Your task to perform on an android device: Add "logitech g502" to the cart on newegg, then select checkout. Image 0: 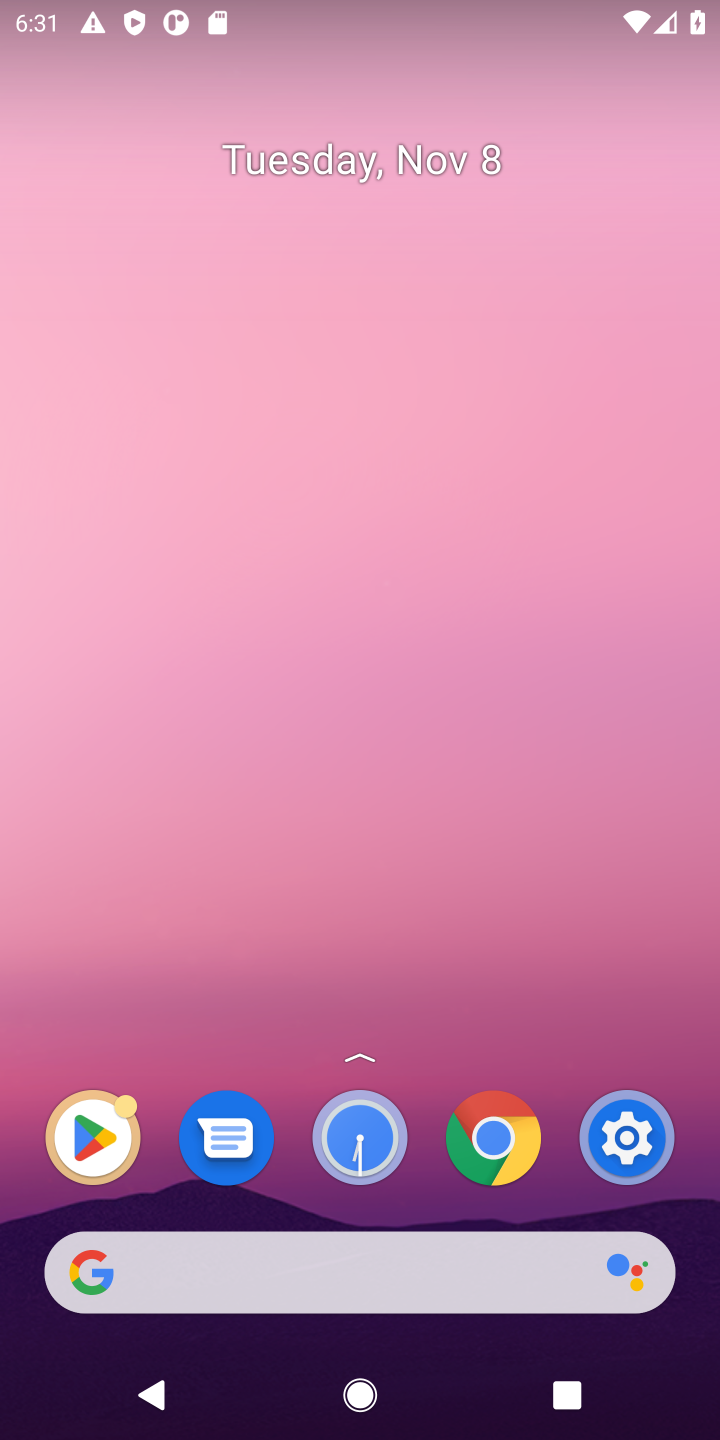
Step 0: click (259, 1272)
Your task to perform on an android device: Add "logitech g502" to the cart on newegg, then select checkout. Image 1: 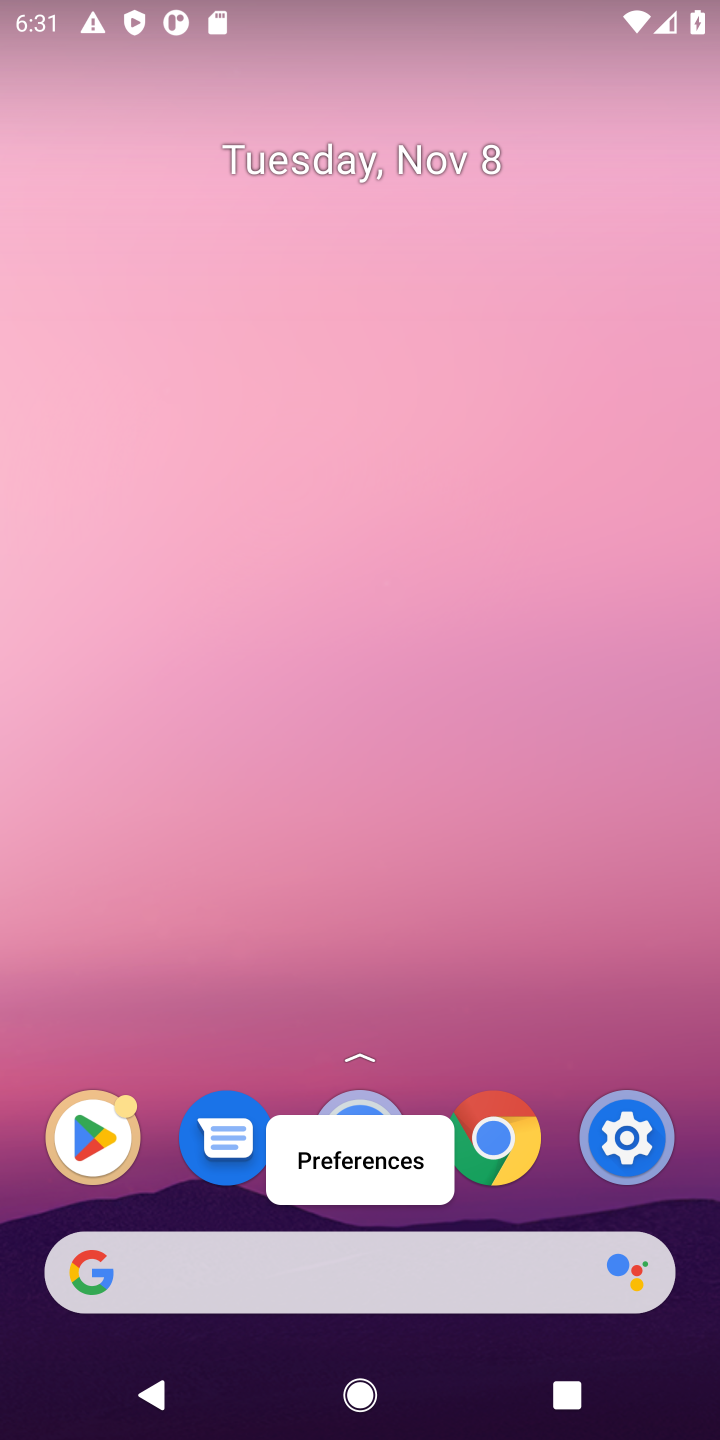
Step 1: click (235, 1283)
Your task to perform on an android device: Add "logitech g502" to the cart on newegg, then select checkout. Image 2: 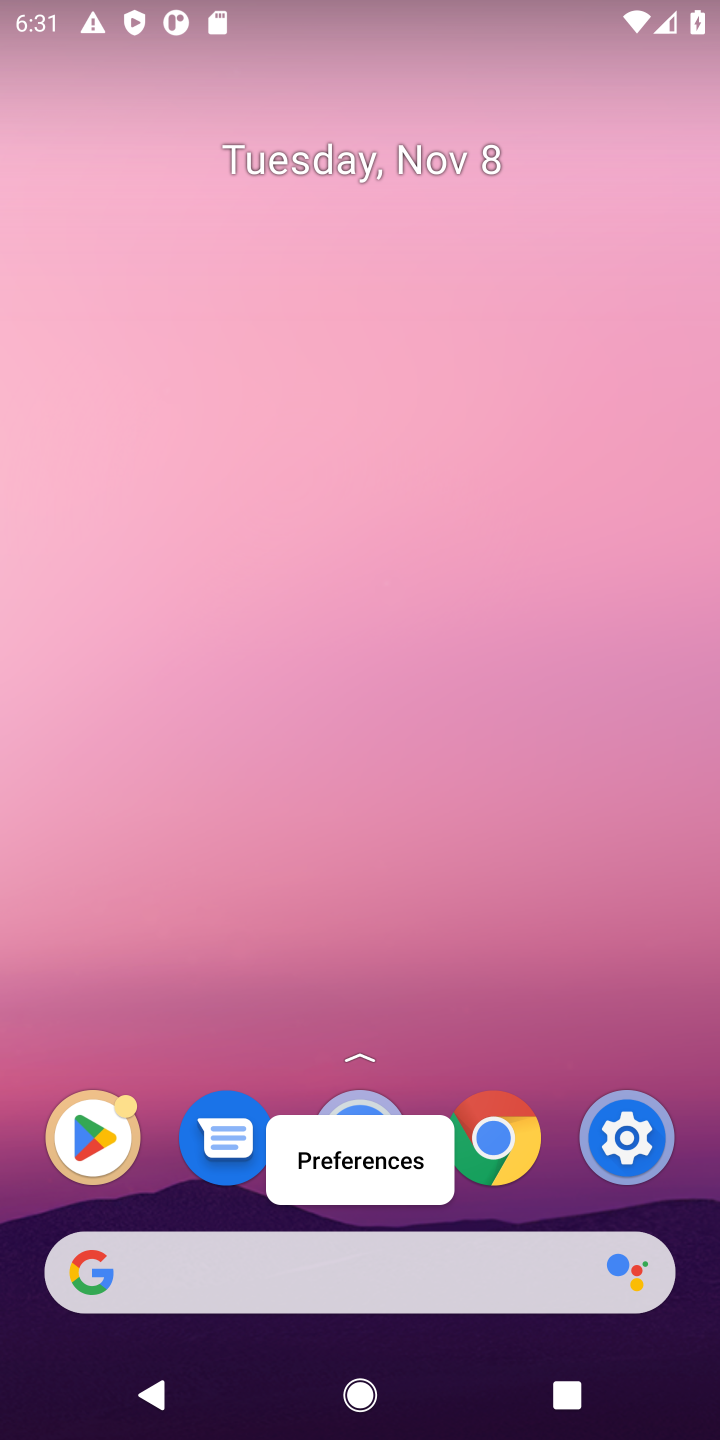
Step 2: click (235, 1281)
Your task to perform on an android device: Add "logitech g502" to the cart on newegg, then select checkout. Image 3: 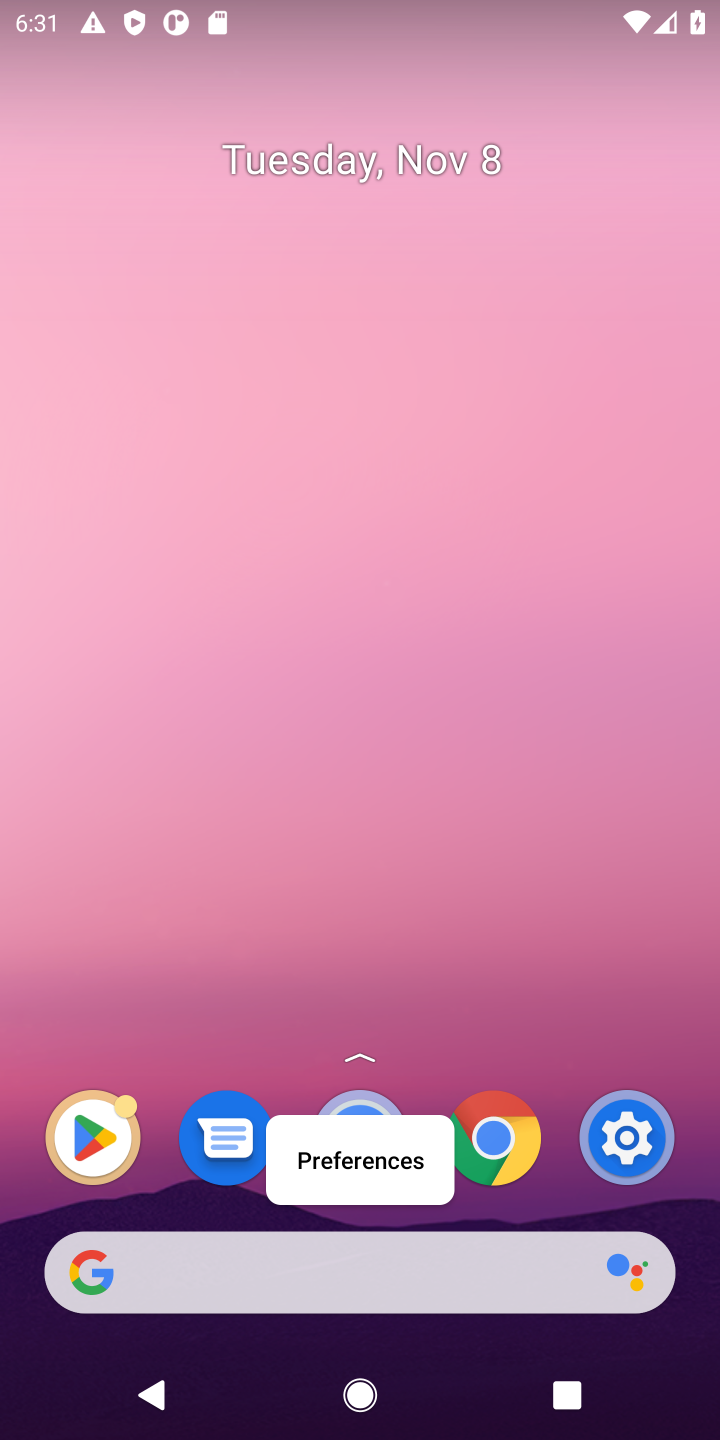
Step 3: click (235, 1281)
Your task to perform on an android device: Add "logitech g502" to the cart on newegg, then select checkout. Image 4: 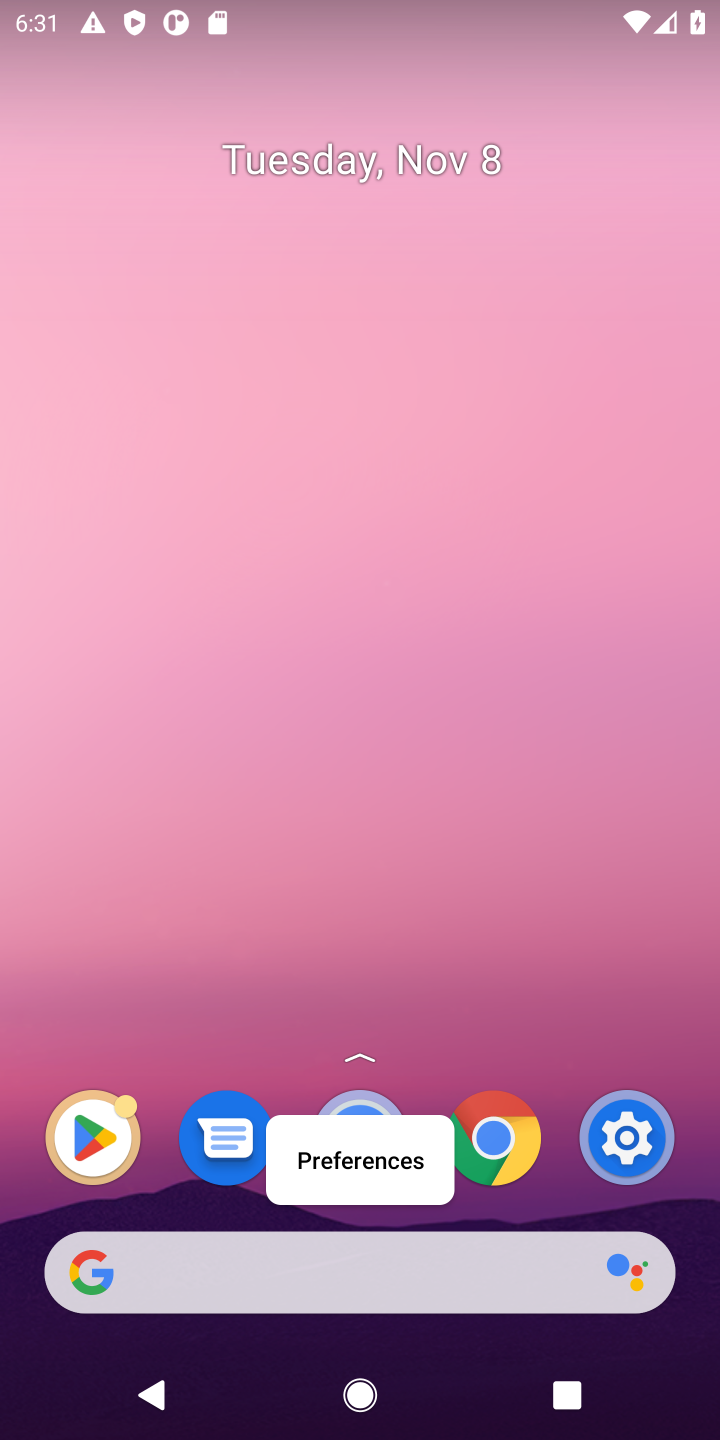
Step 4: click (235, 1281)
Your task to perform on an android device: Add "logitech g502" to the cart on newegg, then select checkout. Image 5: 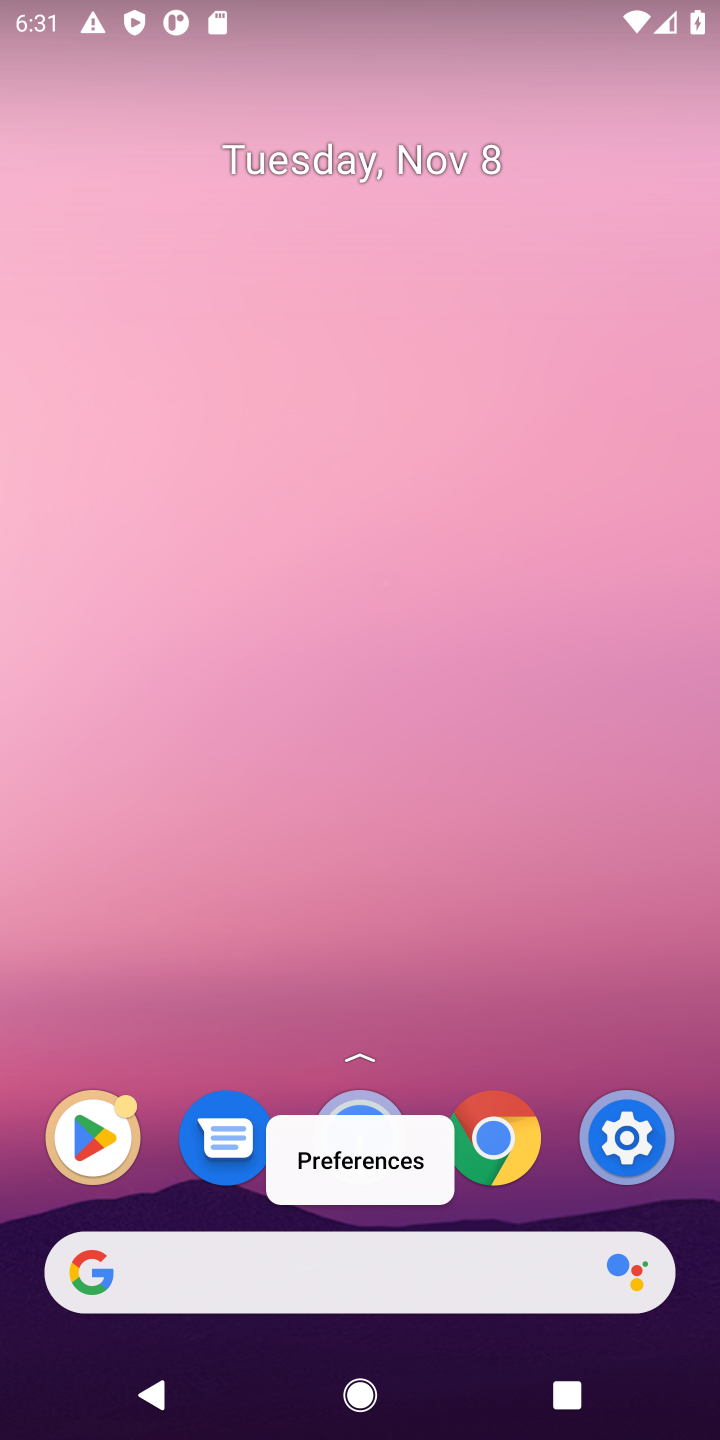
Step 5: click (235, 1281)
Your task to perform on an android device: Add "logitech g502" to the cart on newegg, then select checkout. Image 6: 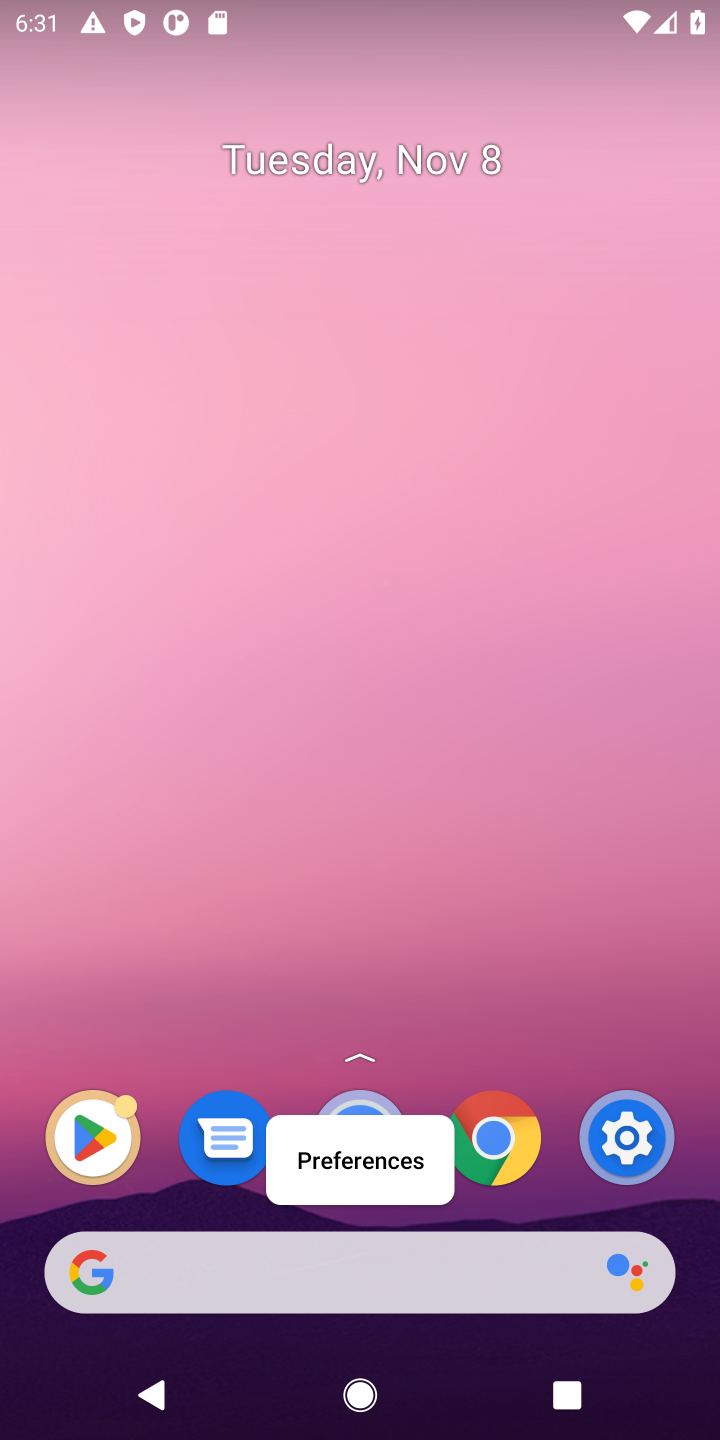
Step 6: click (418, 1259)
Your task to perform on an android device: Add "logitech g502" to the cart on newegg, then select checkout. Image 7: 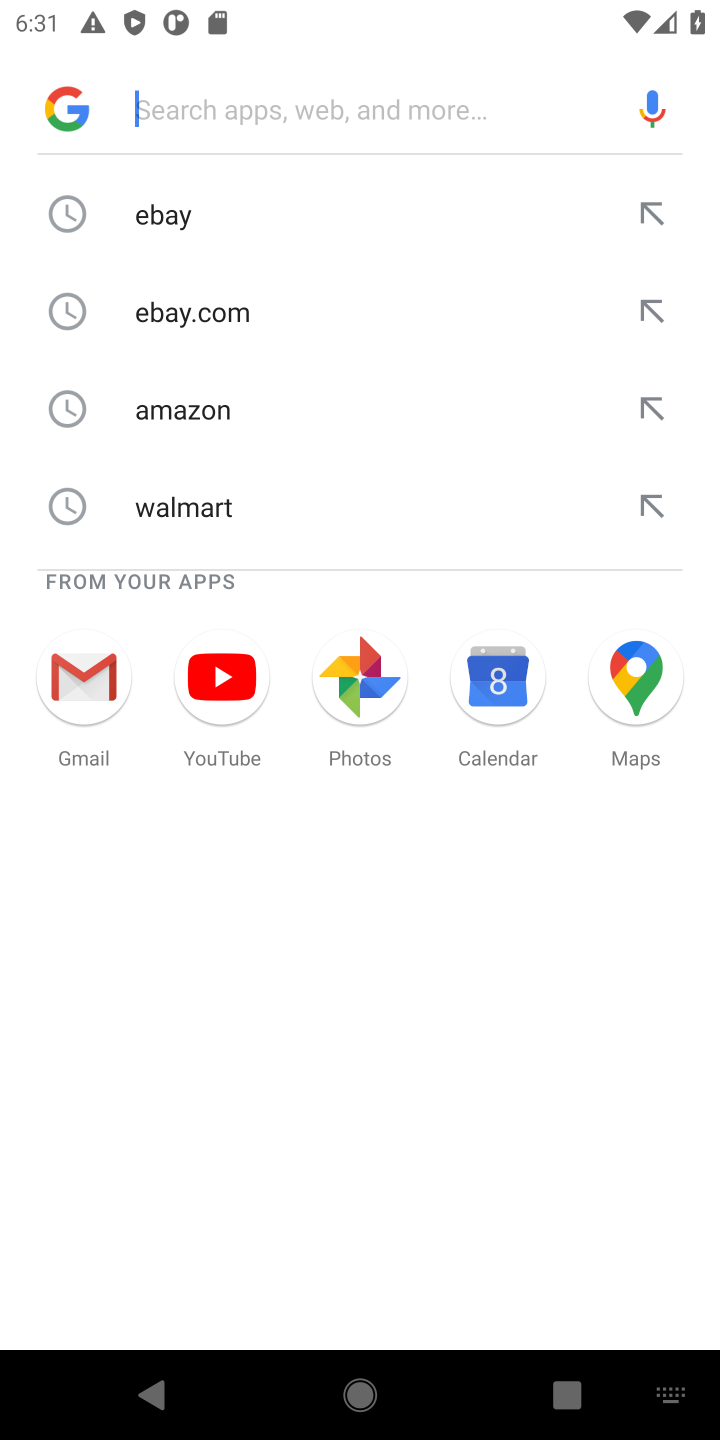
Step 7: type "newegg"
Your task to perform on an android device: Add "logitech g502" to the cart on newegg, then select checkout. Image 8: 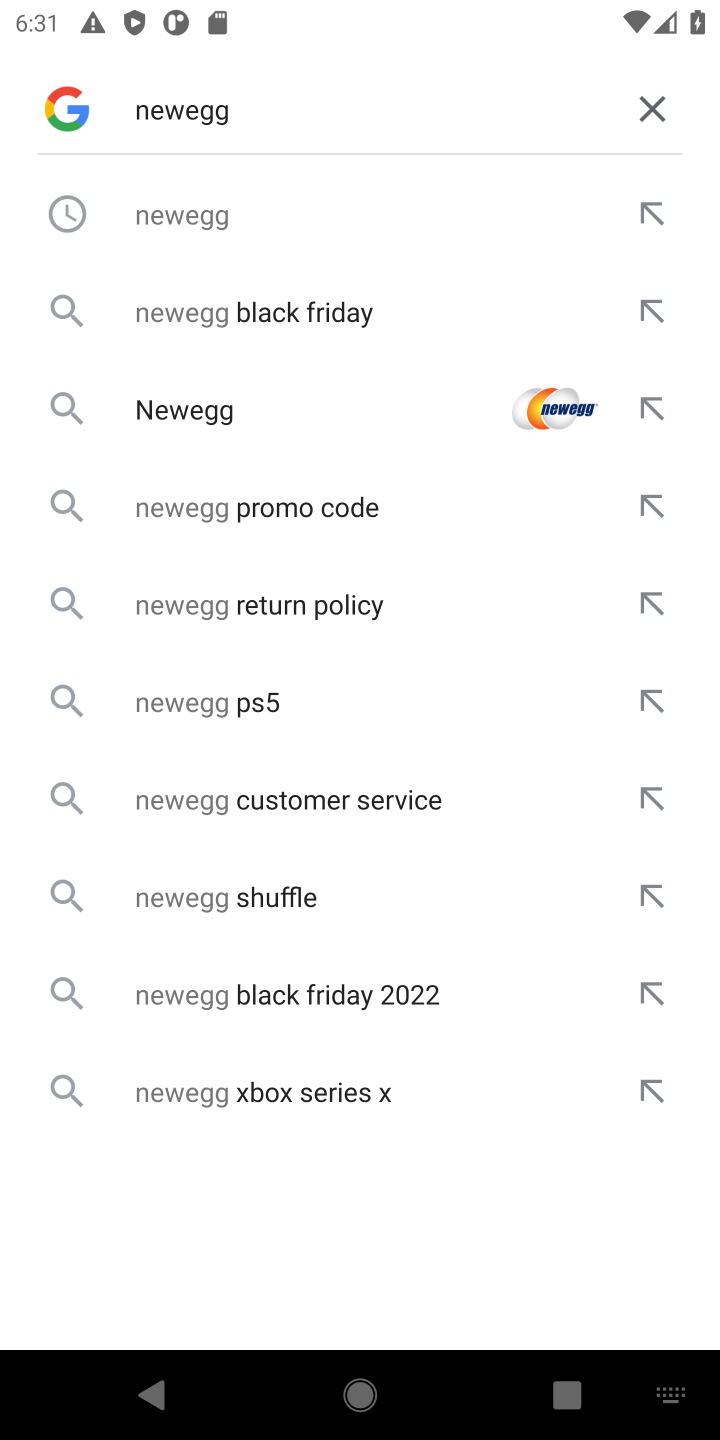
Step 8: type ""
Your task to perform on an android device: Add "logitech g502" to the cart on newegg, then select checkout. Image 9: 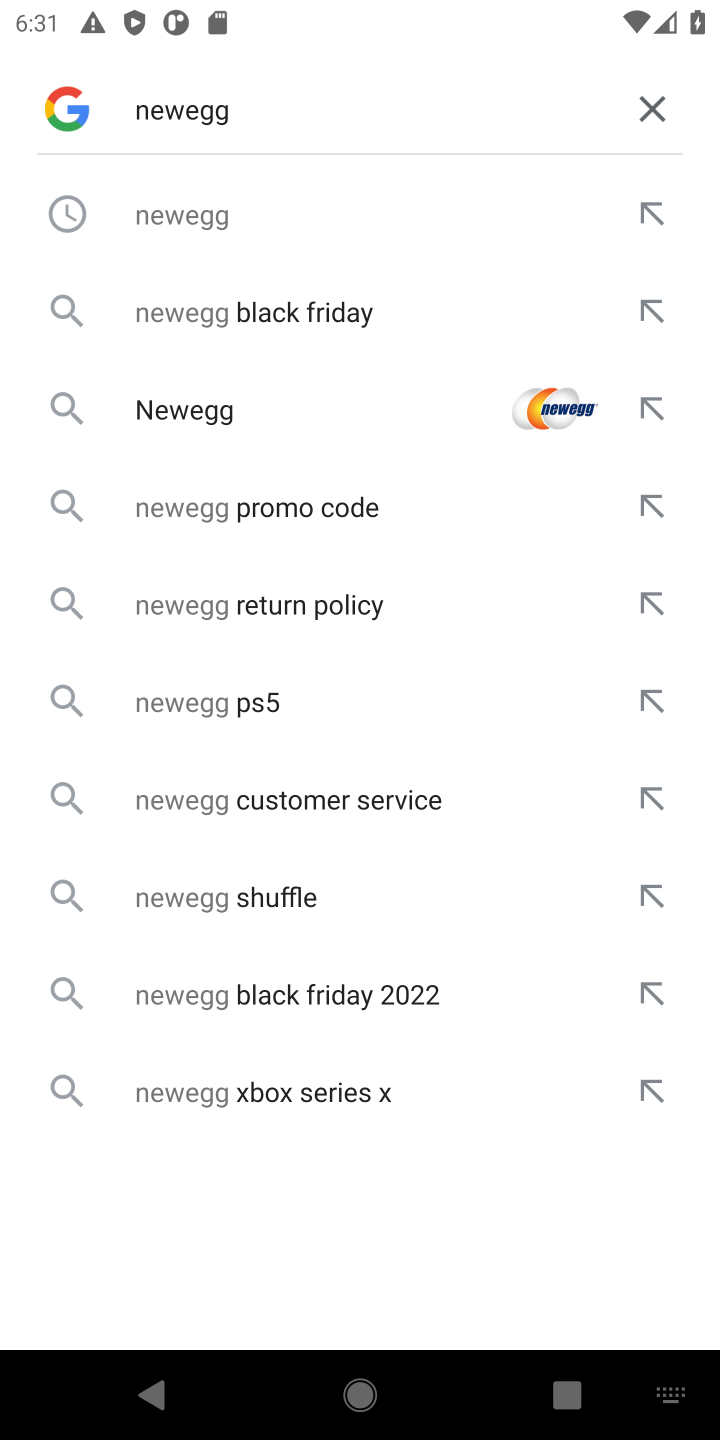
Step 9: press enter
Your task to perform on an android device: Add "logitech g502" to the cart on newegg, then select checkout. Image 10: 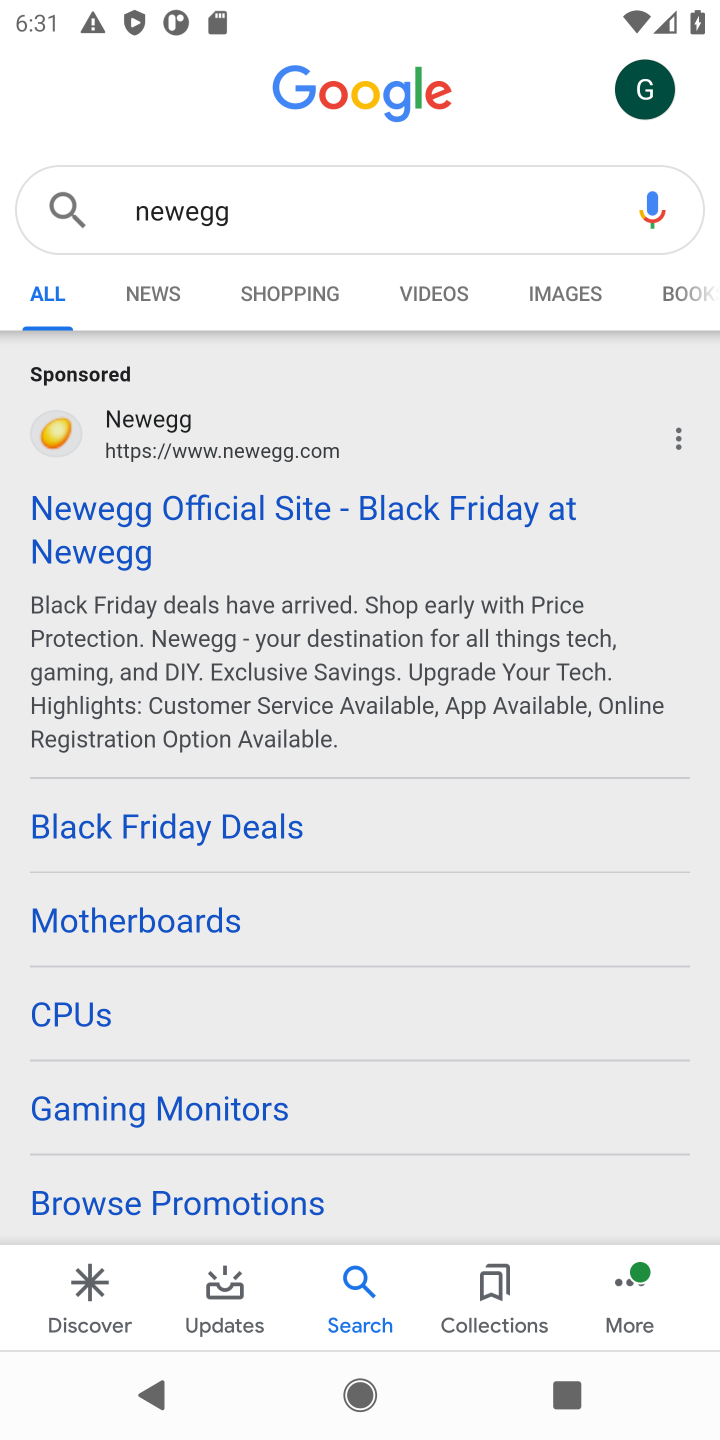
Step 10: click (226, 473)
Your task to perform on an android device: Add "logitech g502" to the cart on newegg, then select checkout. Image 11: 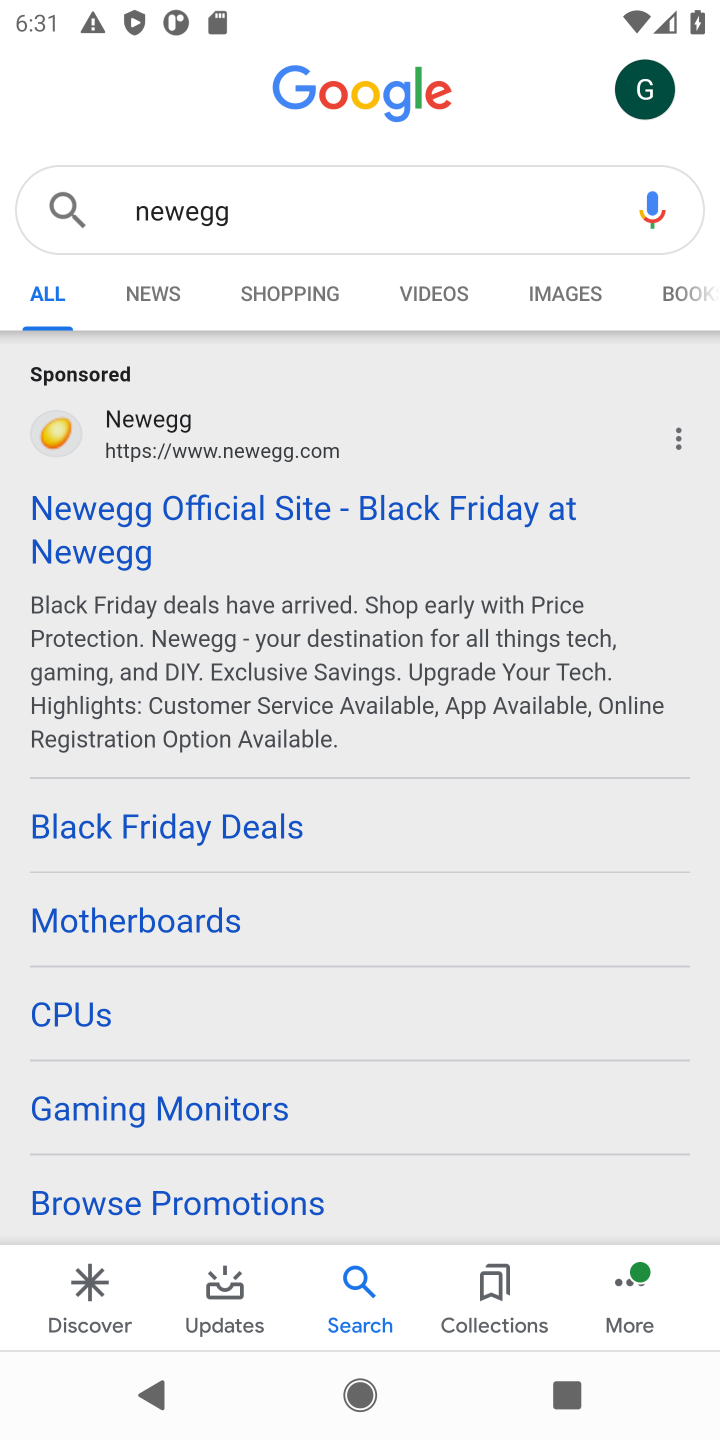
Step 11: click (204, 500)
Your task to perform on an android device: Add "logitech g502" to the cart on newegg, then select checkout. Image 12: 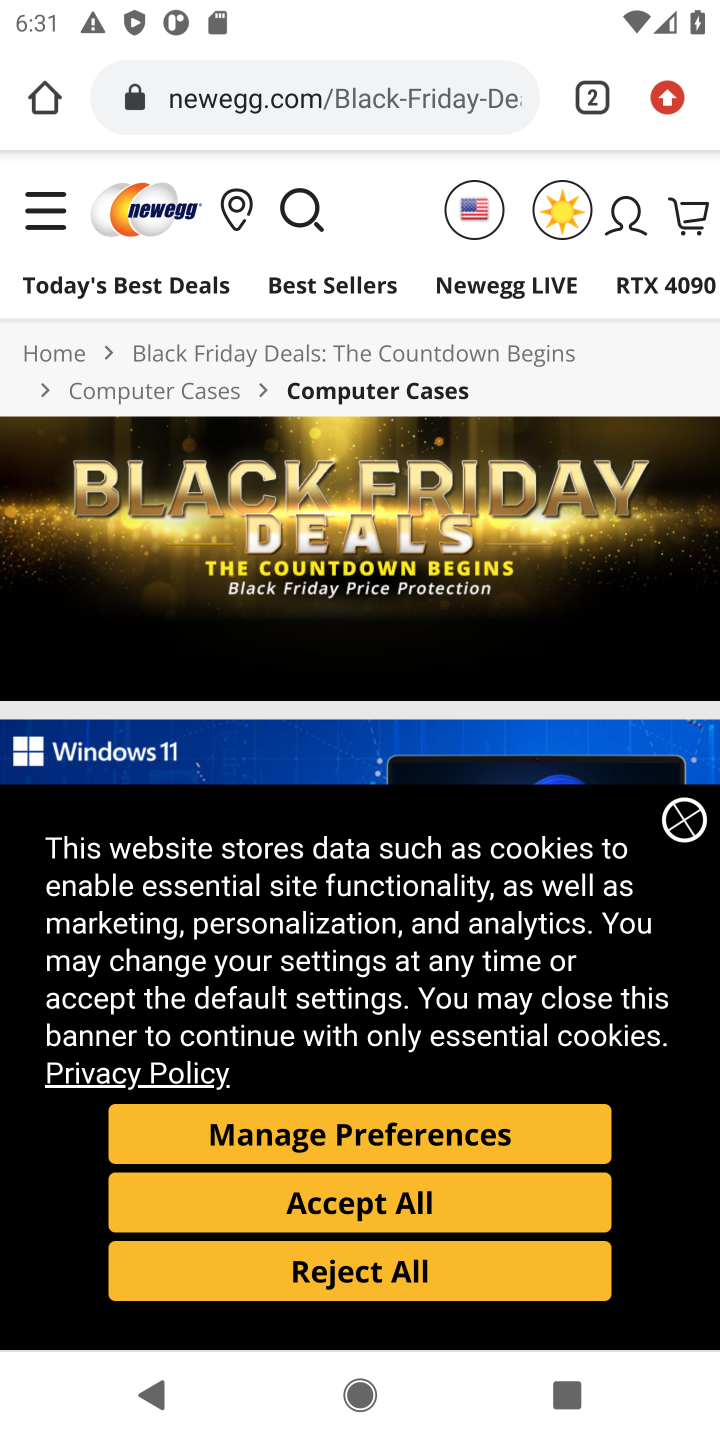
Step 12: drag from (503, 1192) to (406, 1222)
Your task to perform on an android device: Add "logitech g502" to the cart on newegg, then select checkout. Image 13: 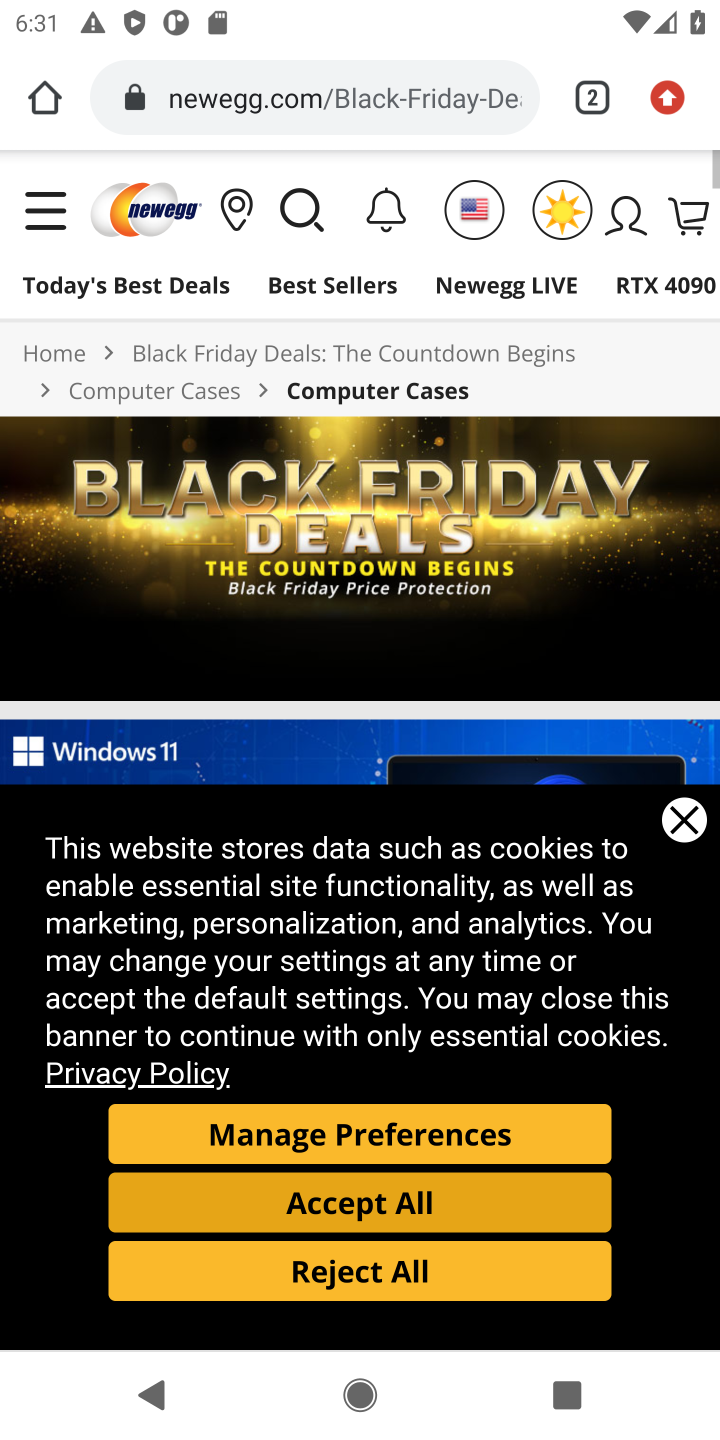
Step 13: click (369, 1215)
Your task to perform on an android device: Add "logitech g502" to the cart on newegg, then select checkout. Image 14: 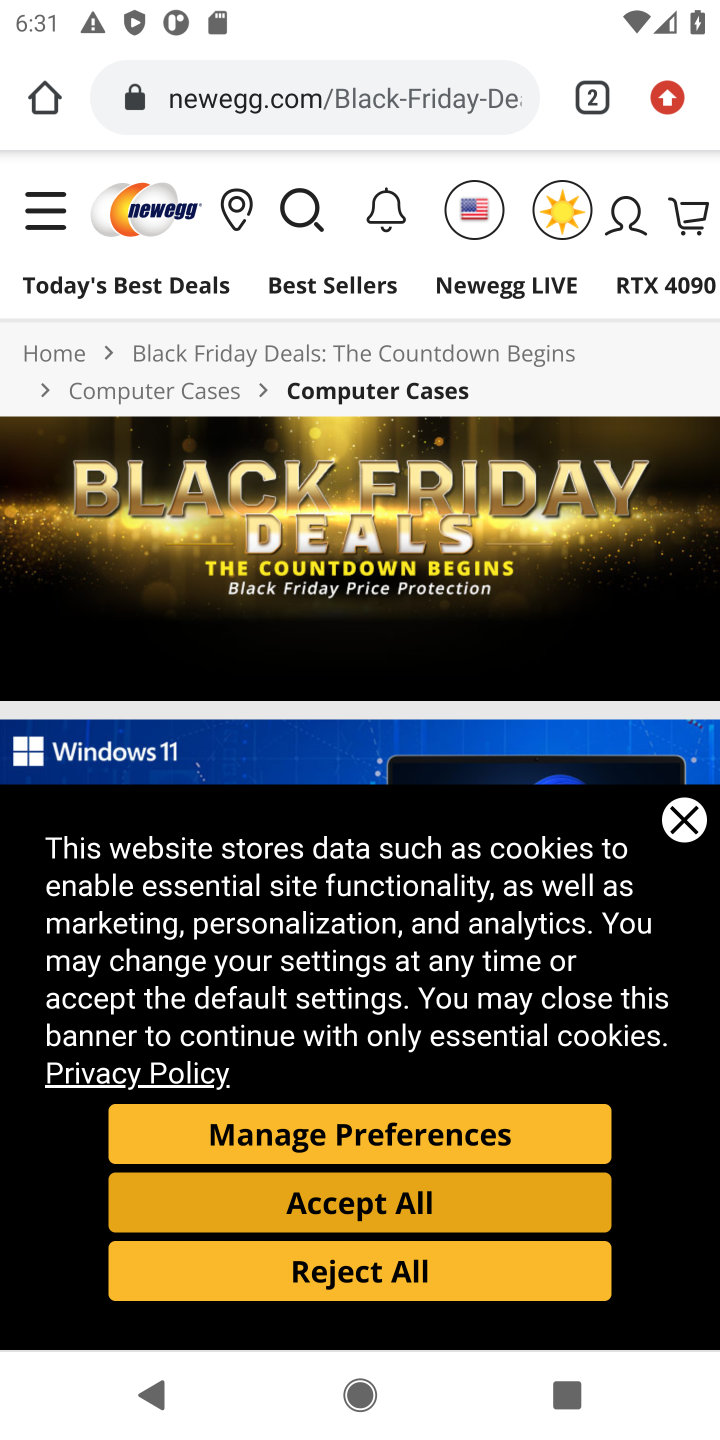
Step 14: click (369, 1215)
Your task to perform on an android device: Add "logitech g502" to the cart on newegg, then select checkout. Image 15: 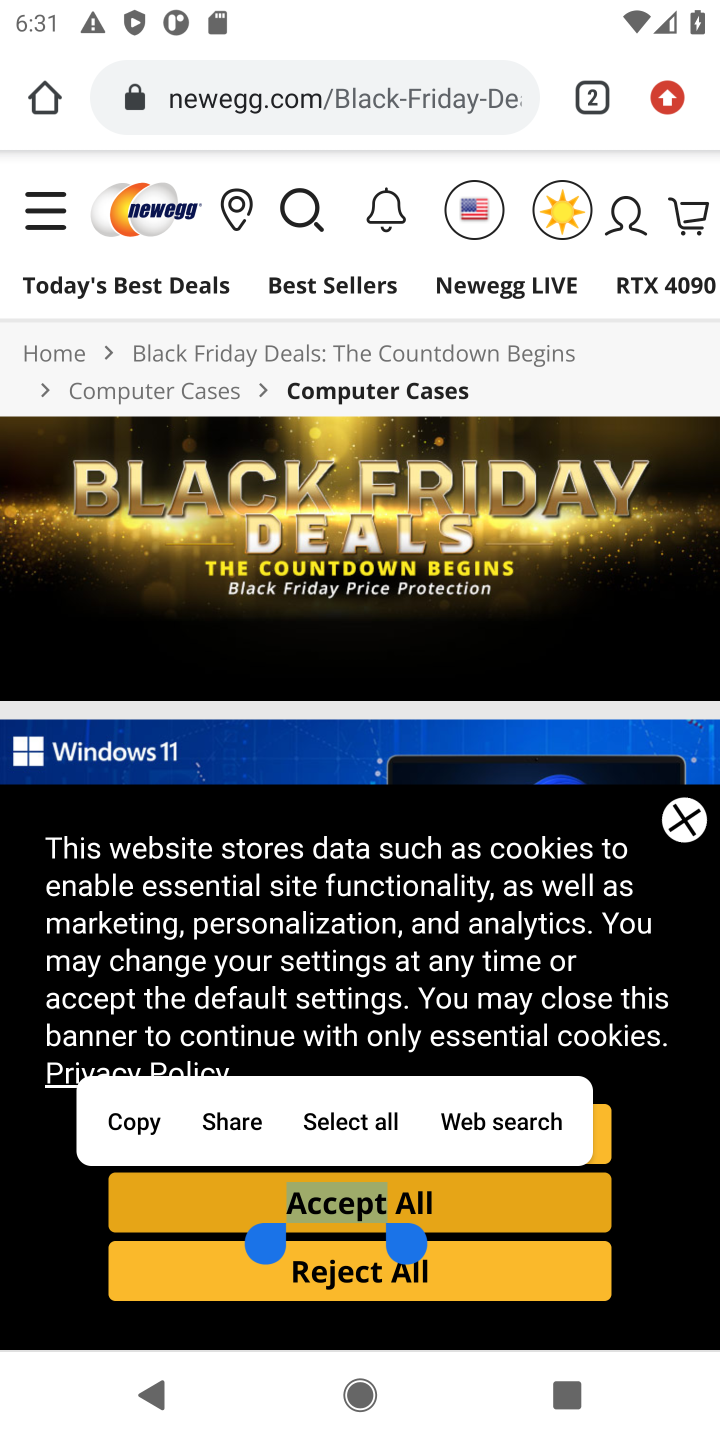
Step 15: click (406, 1291)
Your task to perform on an android device: Add "logitech g502" to the cart on newegg, then select checkout. Image 16: 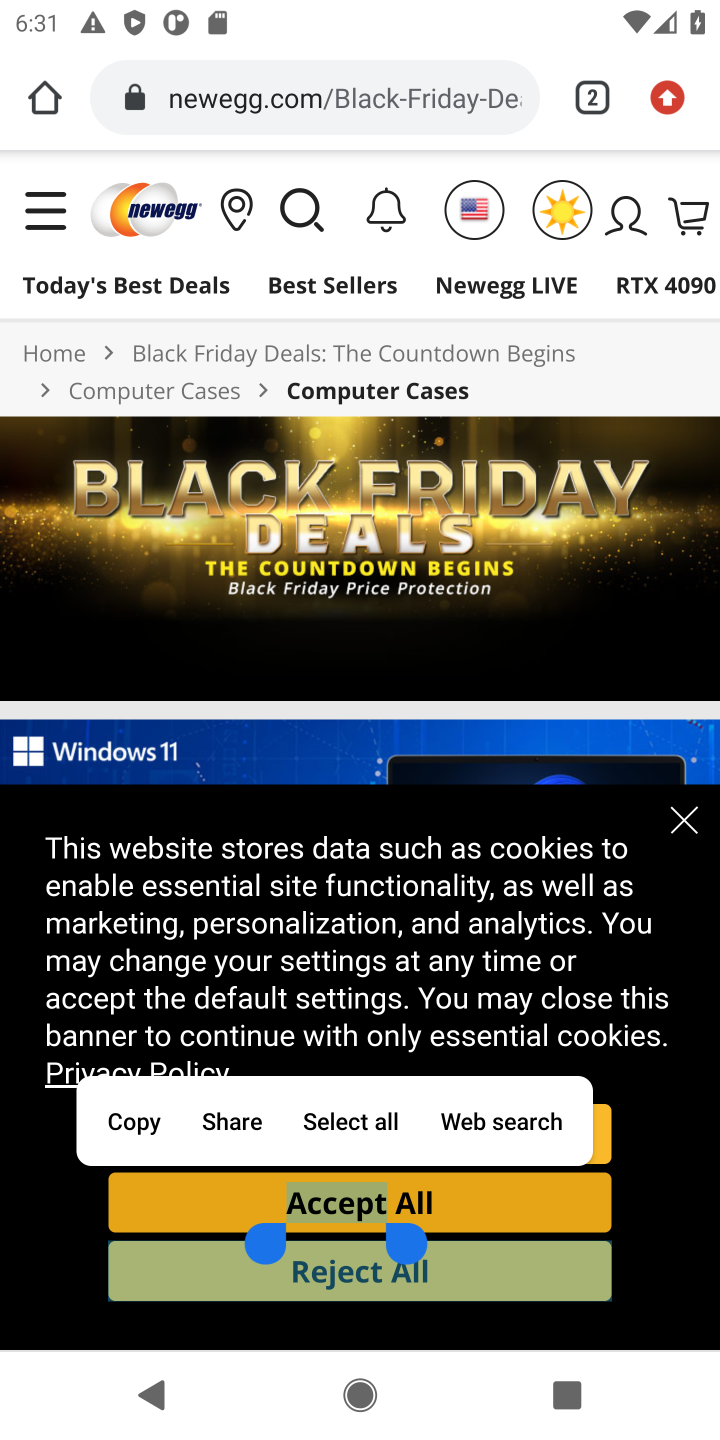
Step 16: click (366, 1282)
Your task to perform on an android device: Add "logitech g502" to the cart on newegg, then select checkout. Image 17: 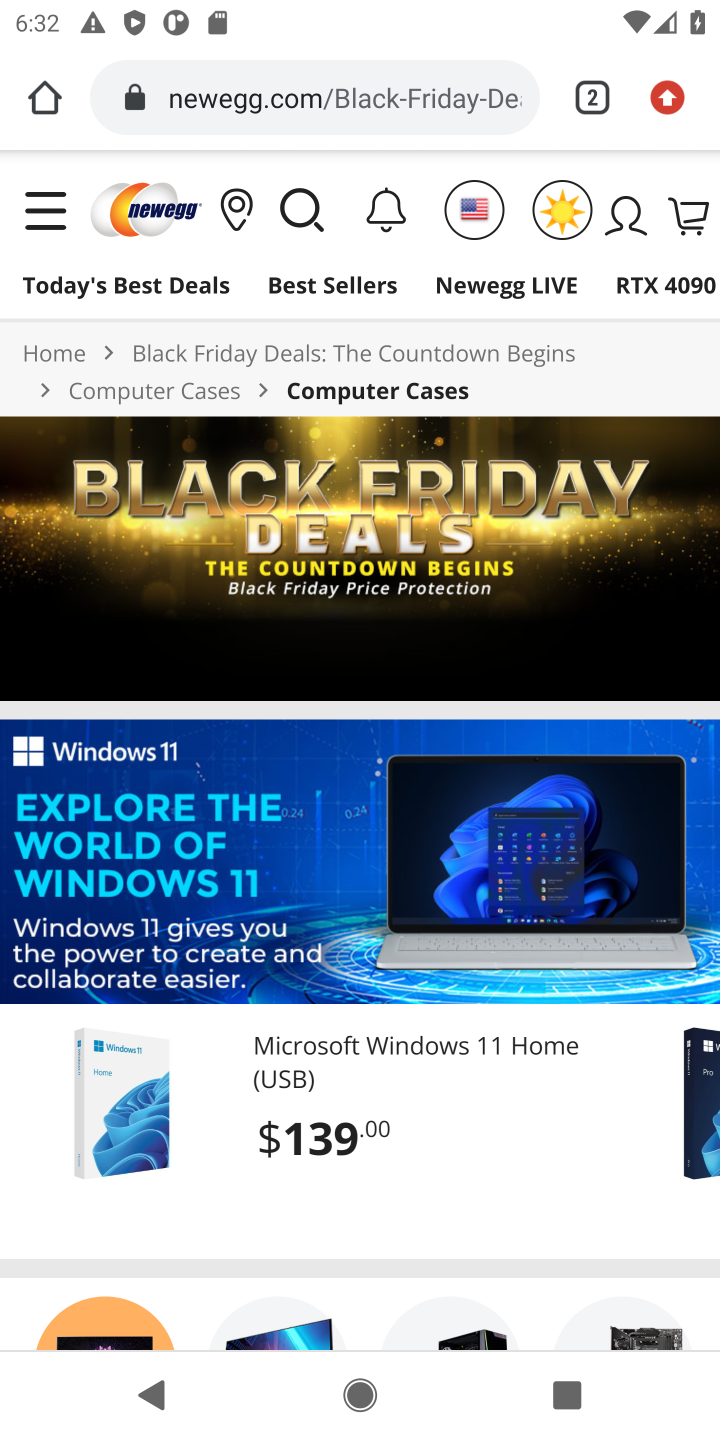
Step 17: drag from (436, 1182) to (417, 478)
Your task to perform on an android device: Add "logitech g502" to the cart on newegg, then select checkout. Image 18: 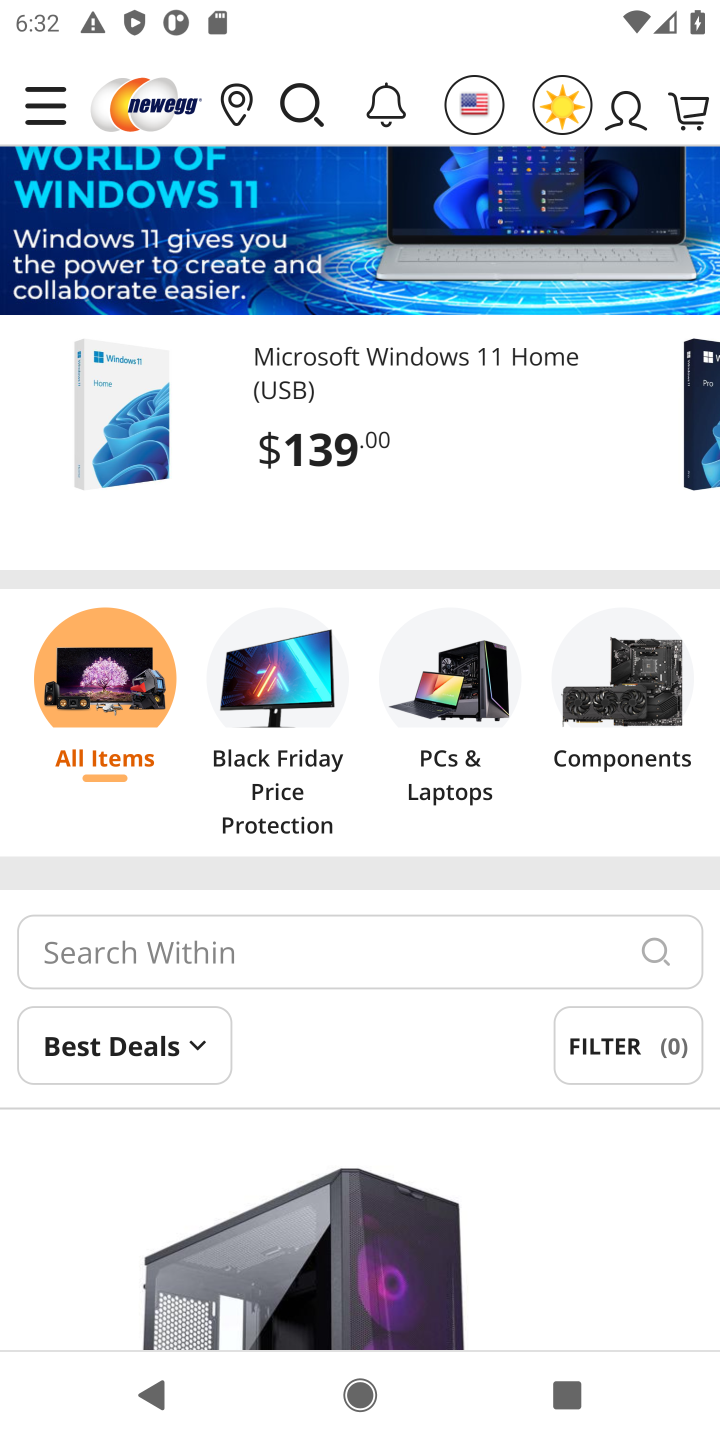
Step 18: click (245, 948)
Your task to perform on an android device: Add "logitech g502" to the cart on newegg, then select checkout. Image 19: 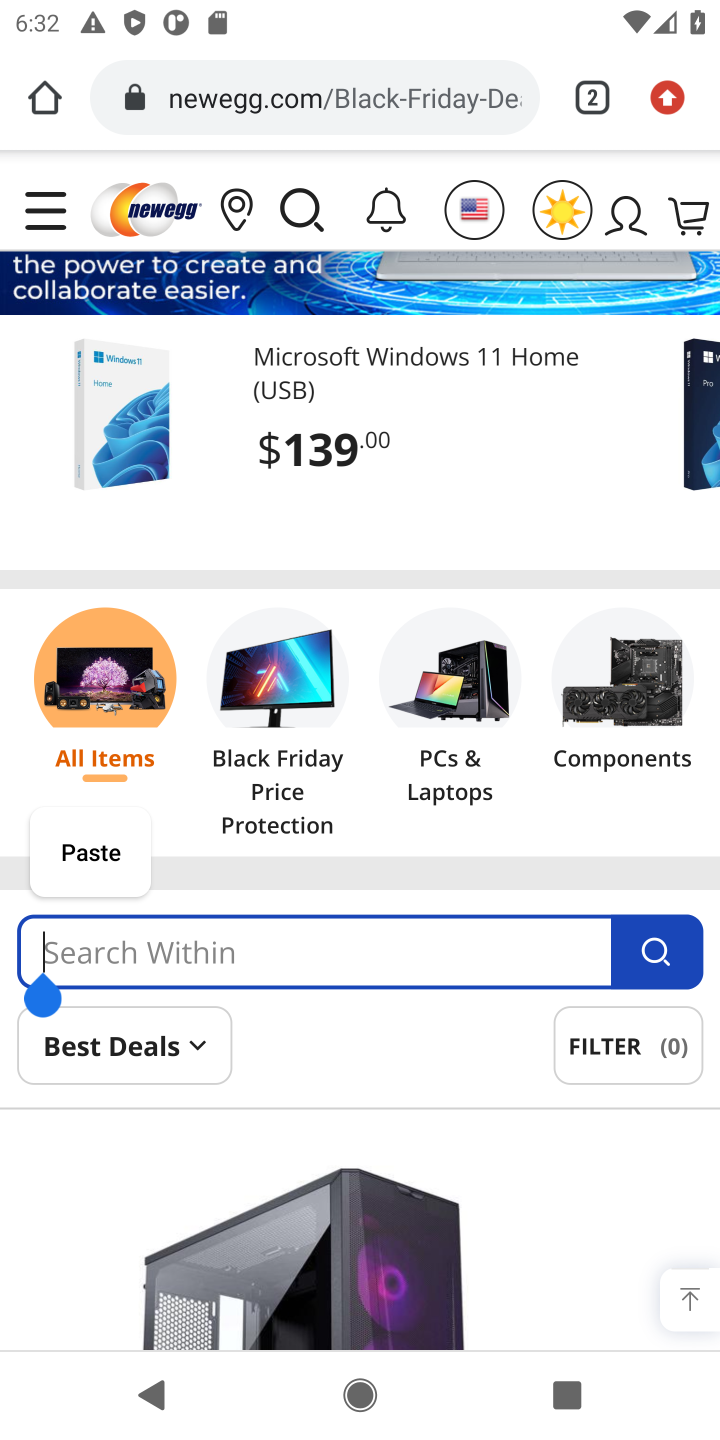
Step 19: type "logitech g502"
Your task to perform on an android device: Add "logitech g502" to the cart on newegg, then select checkout. Image 20: 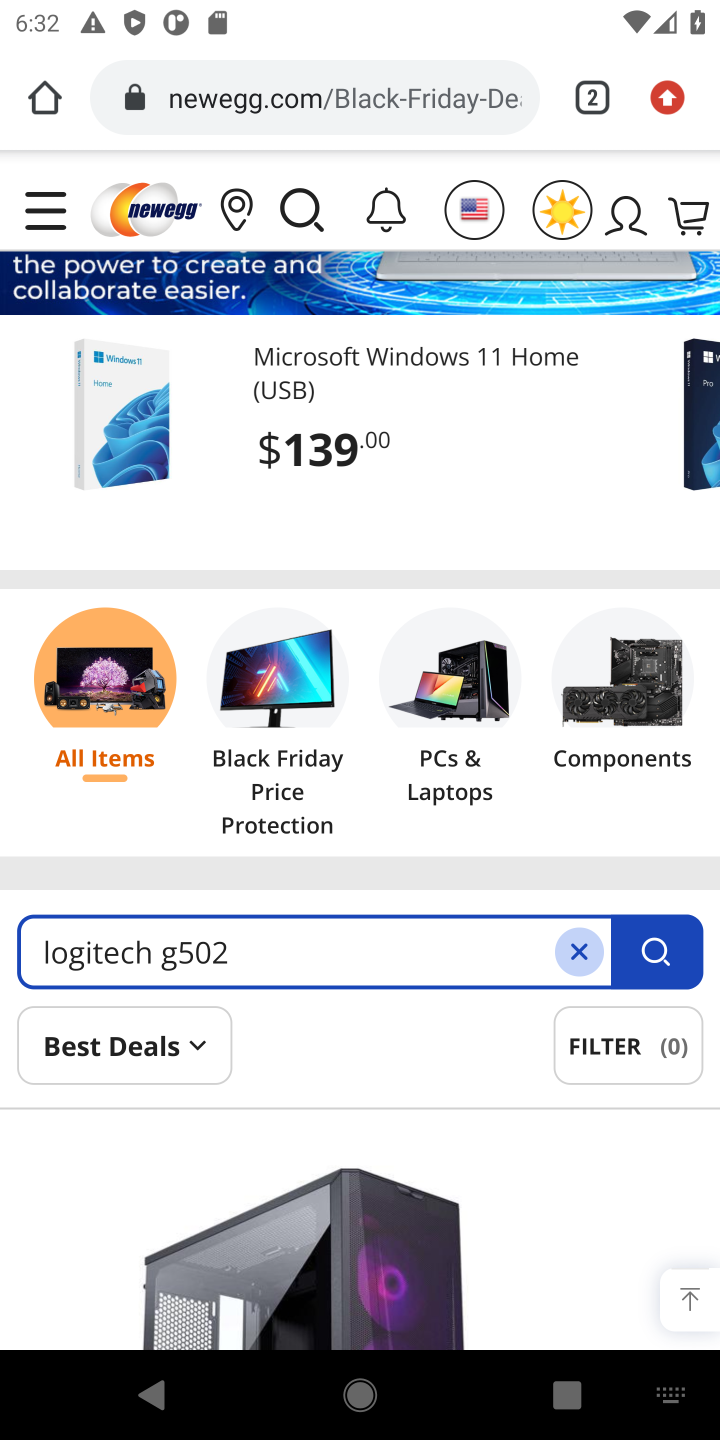
Step 20: type ""
Your task to perform on an android device: Add "logitech g502" to the cart on newegg, then select checkout. Image 21: 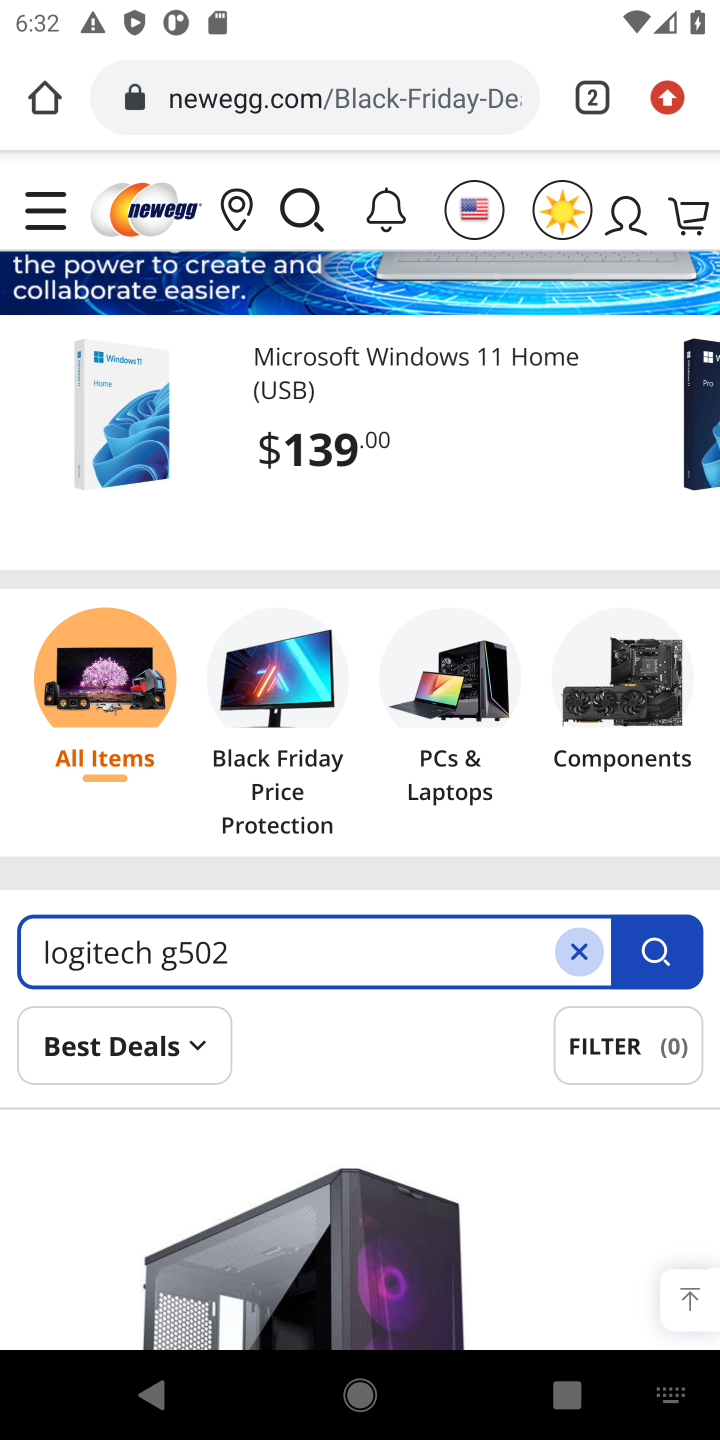
Step 21: press enter
Your task to perform on an android device: Add "logitech g502" to the cart on newegg, then select checkout. Image 22: 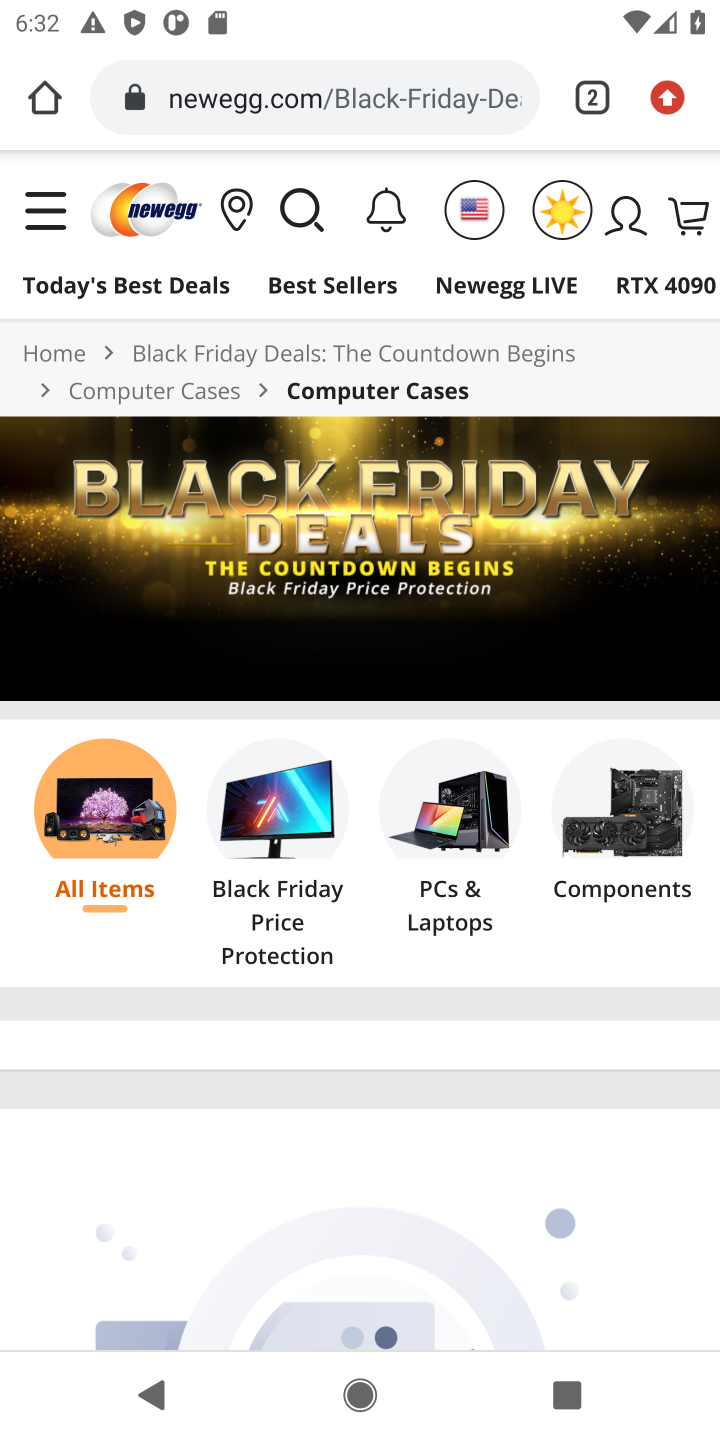
Step 22: task complete